Your task to perform on an android device: Add "energizer triple a" to the cart on amazon Image 0: 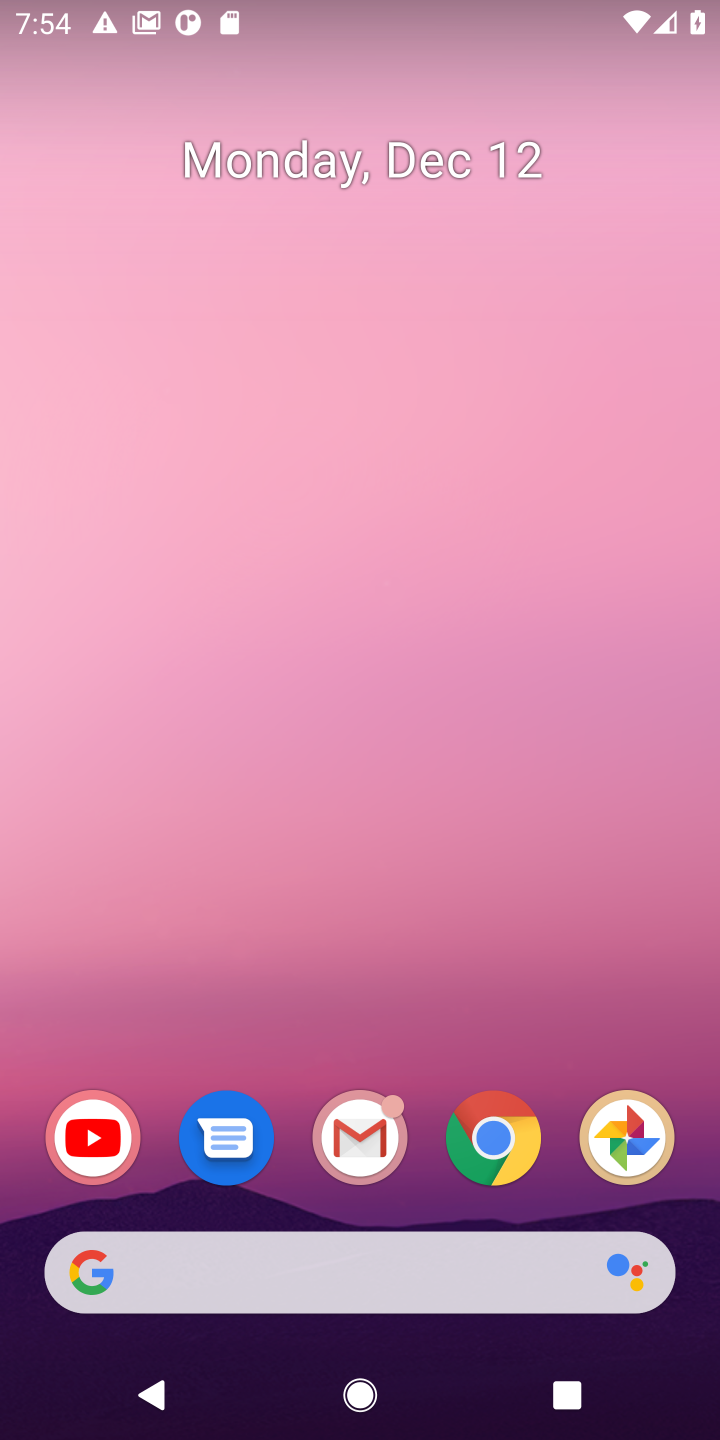
Step 0: drag from (361, 1283) to (409, 110)
Your task to perform on an android device: Add "energizer triple a" to the cart on amazon Image 1: 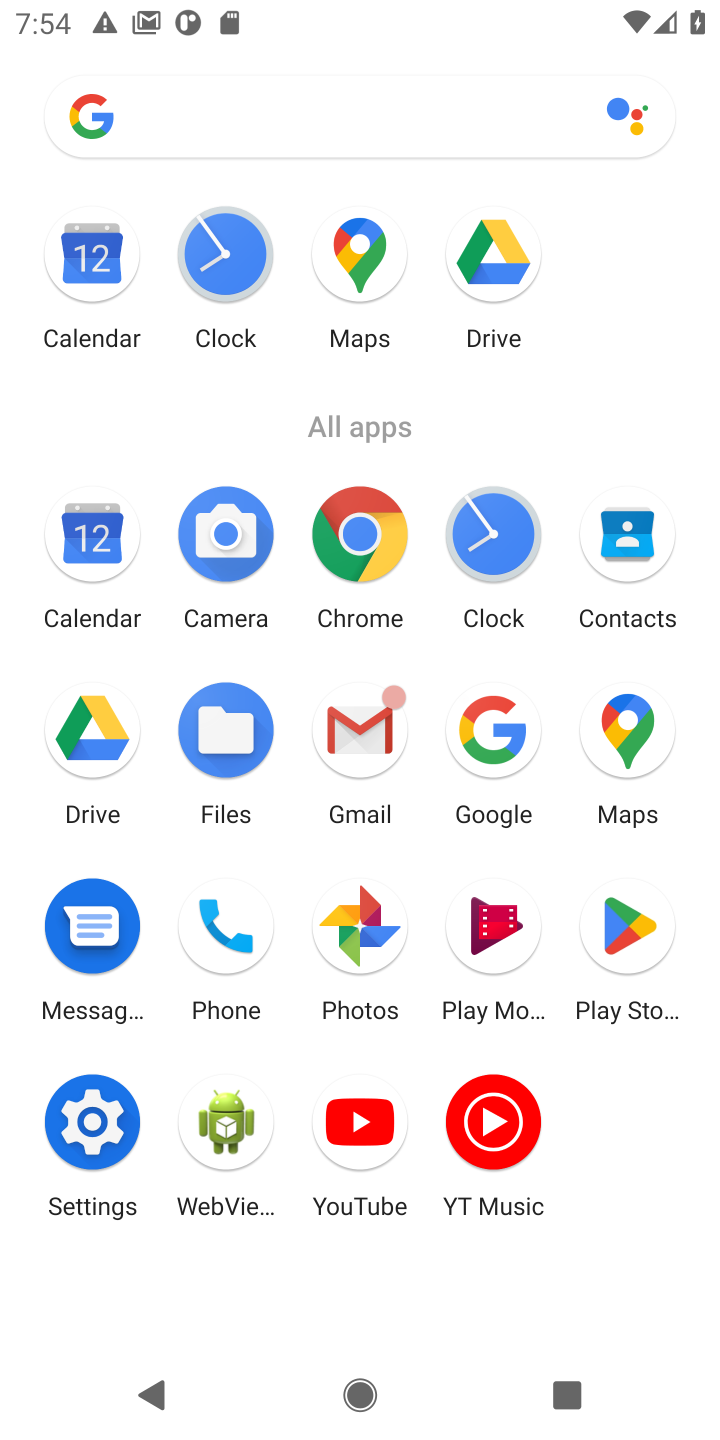
Step 1: click (470, 705)
Your task to perform on an android device: Add "energizer triple a" to the cart on amazon Image 2: 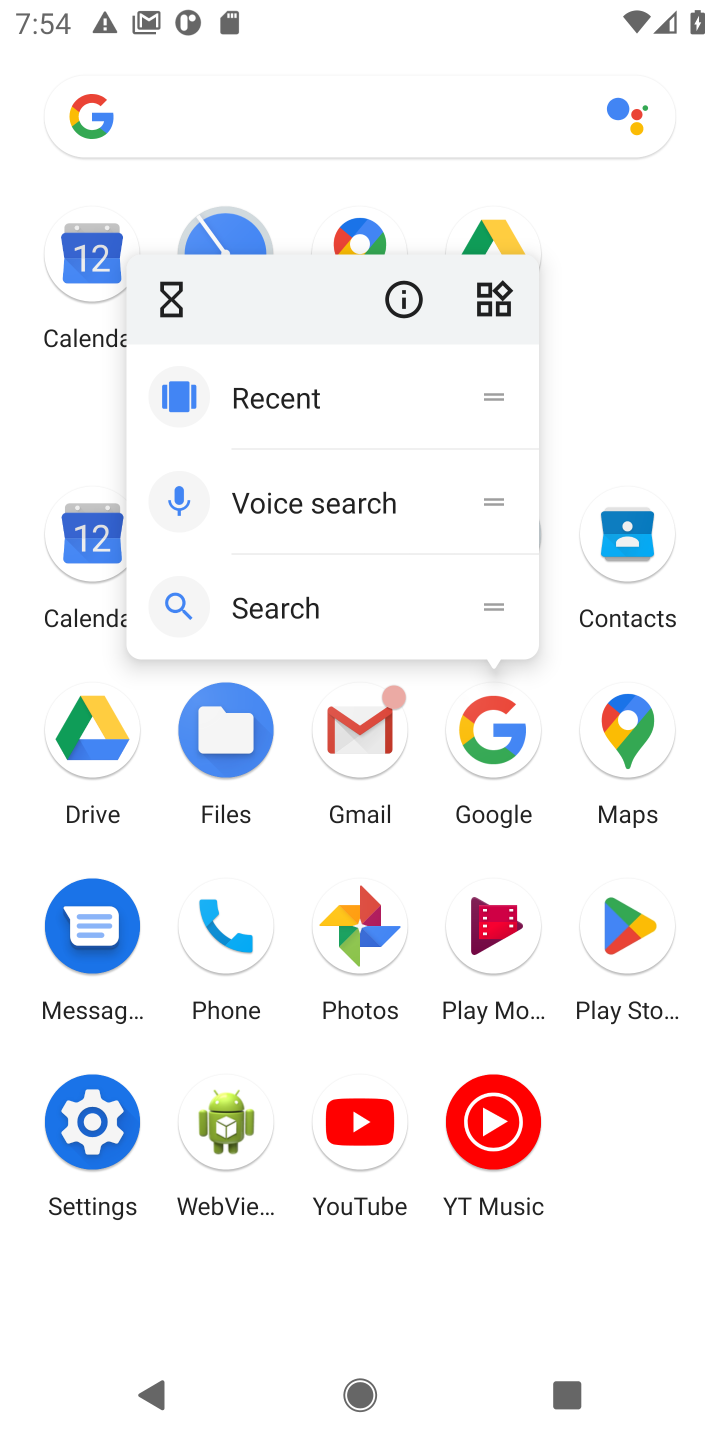
Step 2: click (488, 724)
Your task to perform on an android device: Add "energizer triple a" to the cart on amazon Image 3: 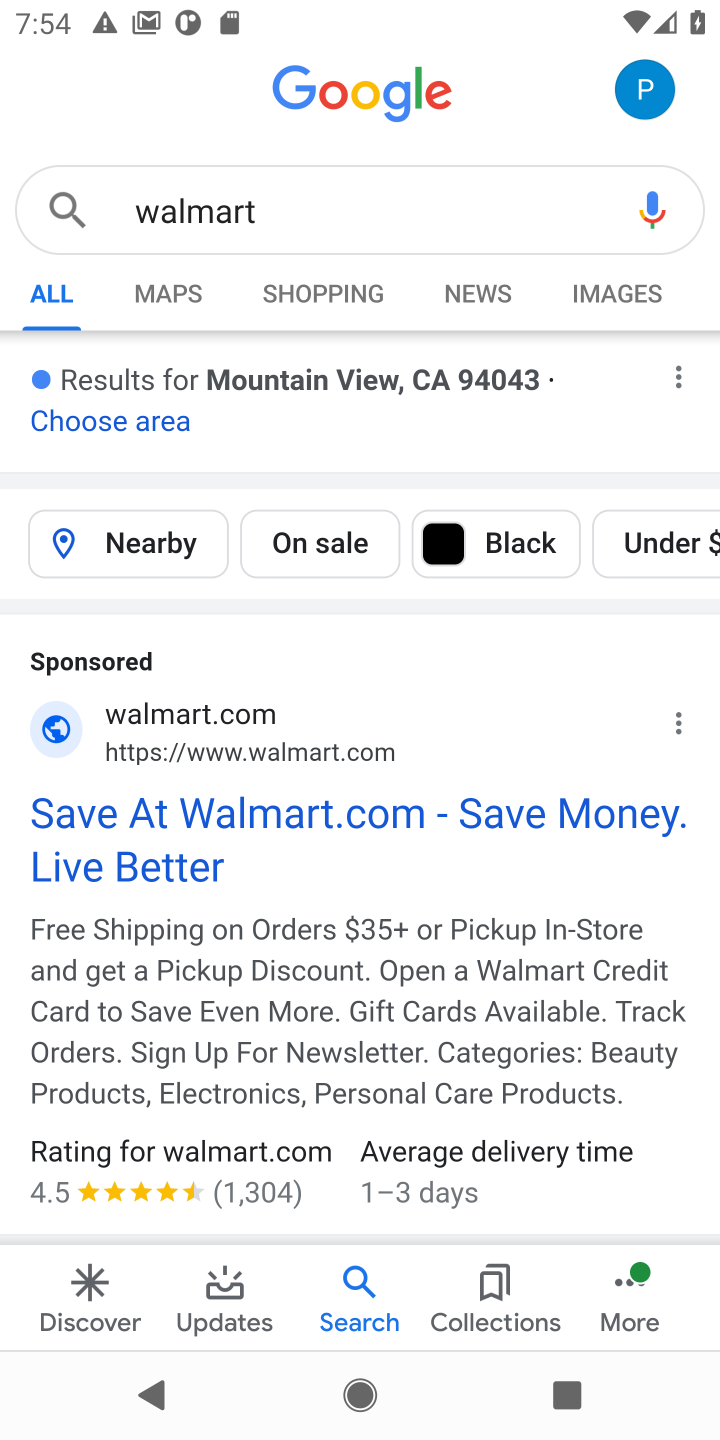
Step 3: click (221, 209)
Your task to perform on an android device: Add "energizer triple a" to the cart on amazon Image 4: 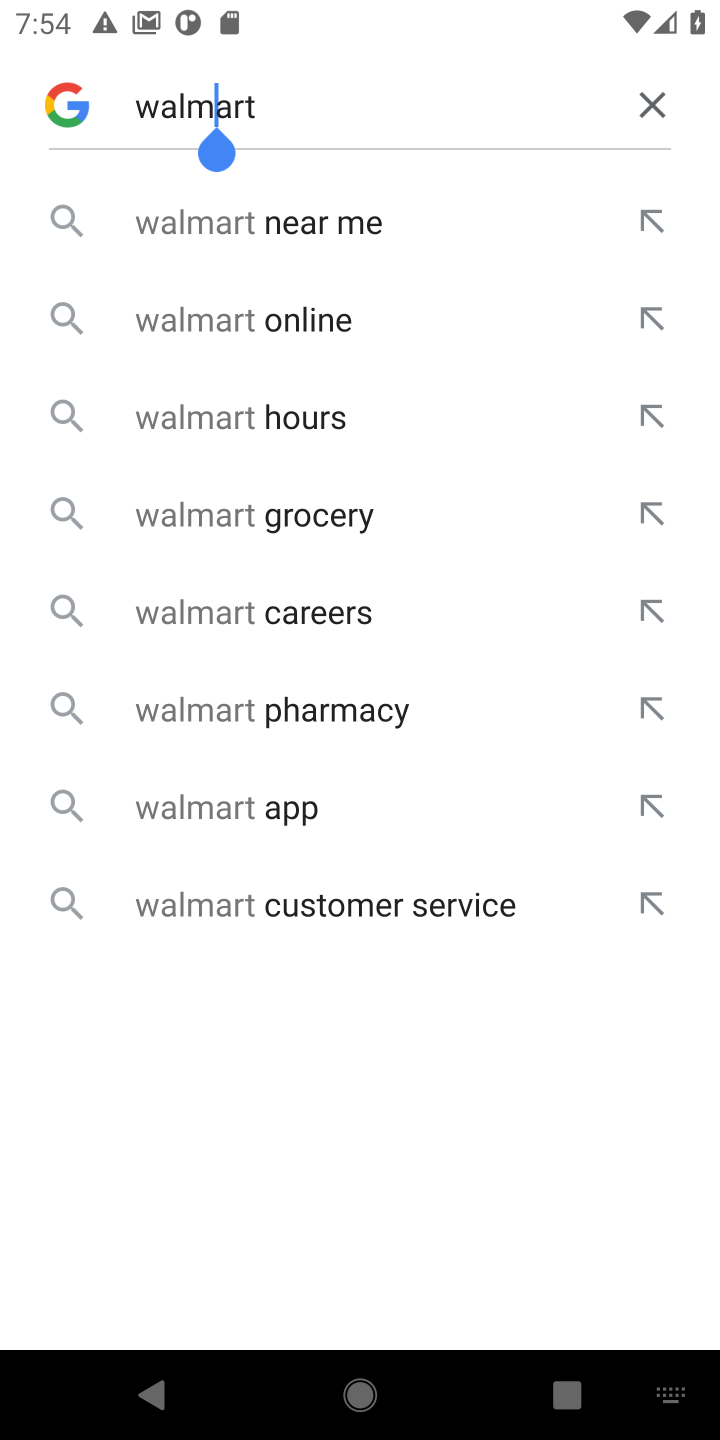
Step 4: click (642, 104)
Your task to perform on an android device: Add "energizer triple a" to the cart on amazon Image 5: 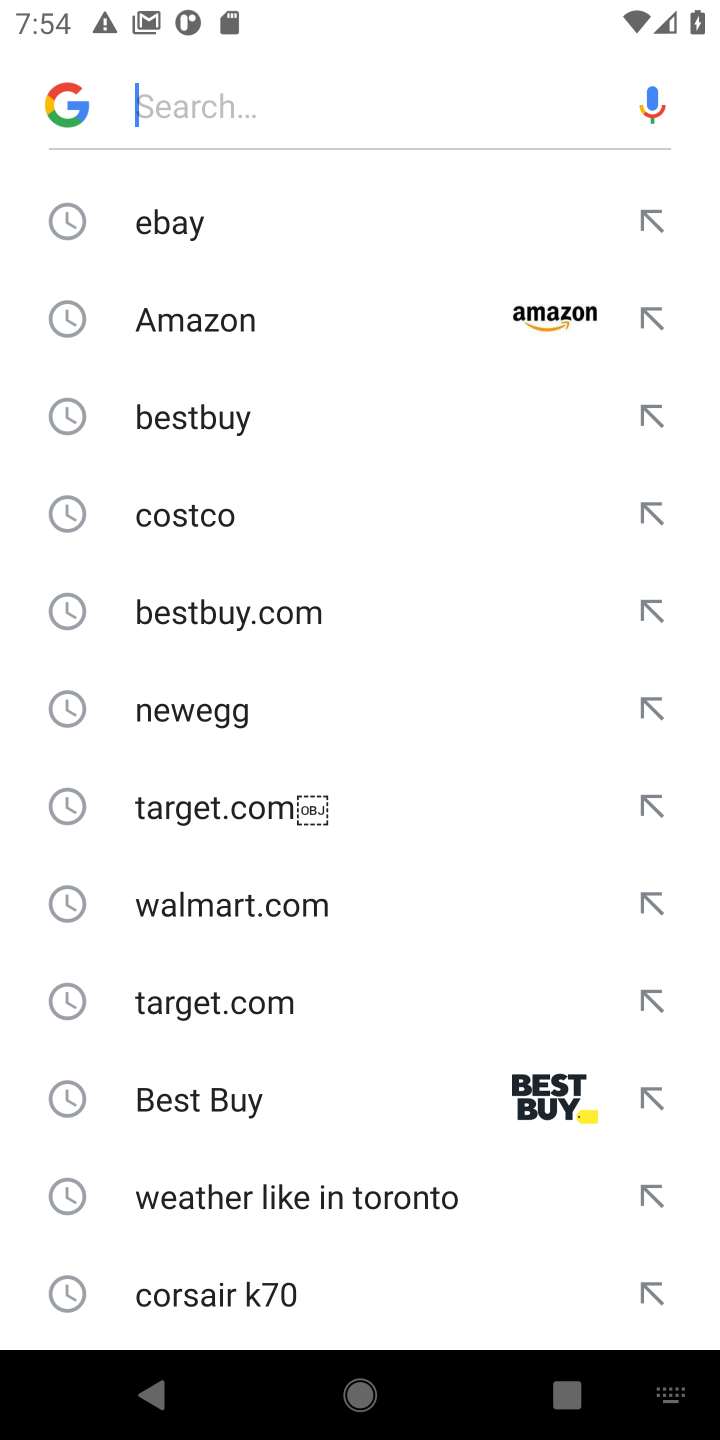
Step 5: click (552, 310)
Your task to perform on an android device: Add "energizer triple a" to the cart on amazon Image 6: 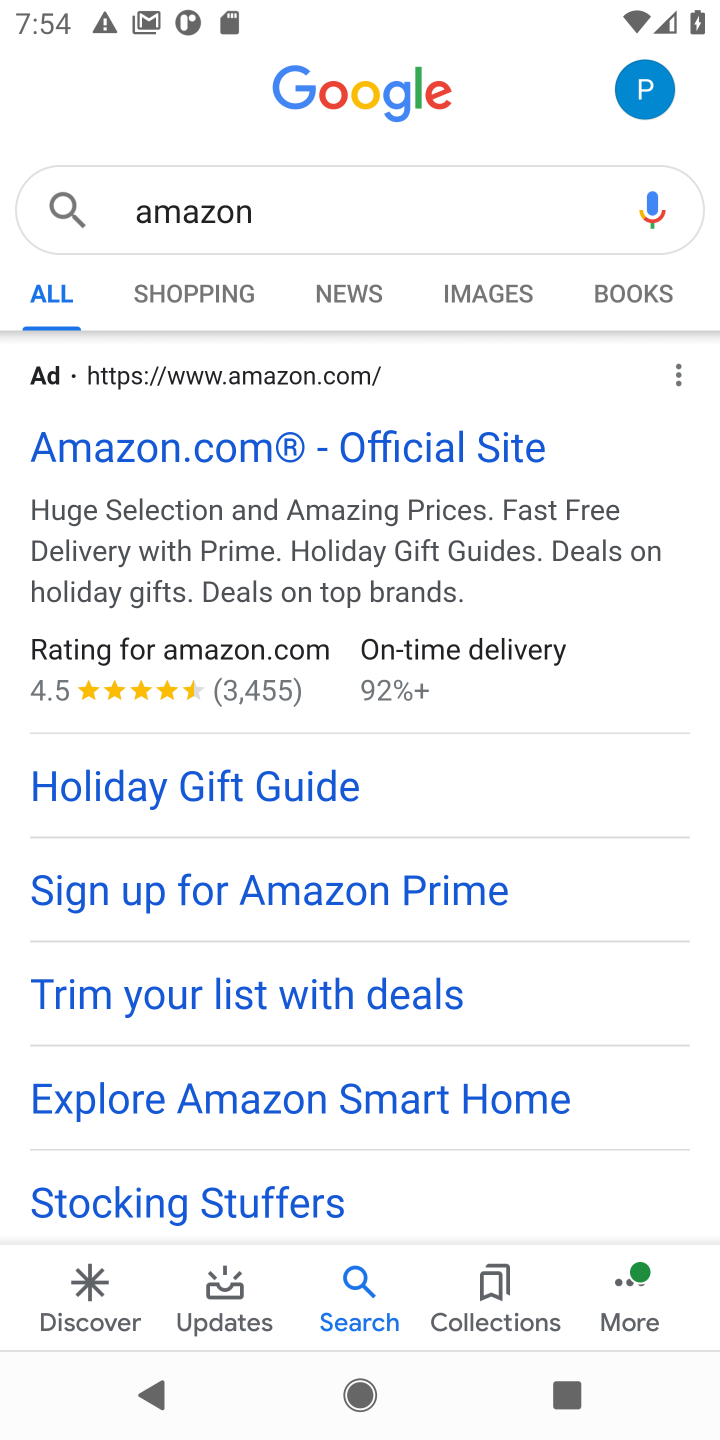
Step 6: click (139, 449)
Your task to perform on an android device: Add "energizer triple a" to the cart on amazon Image 7: 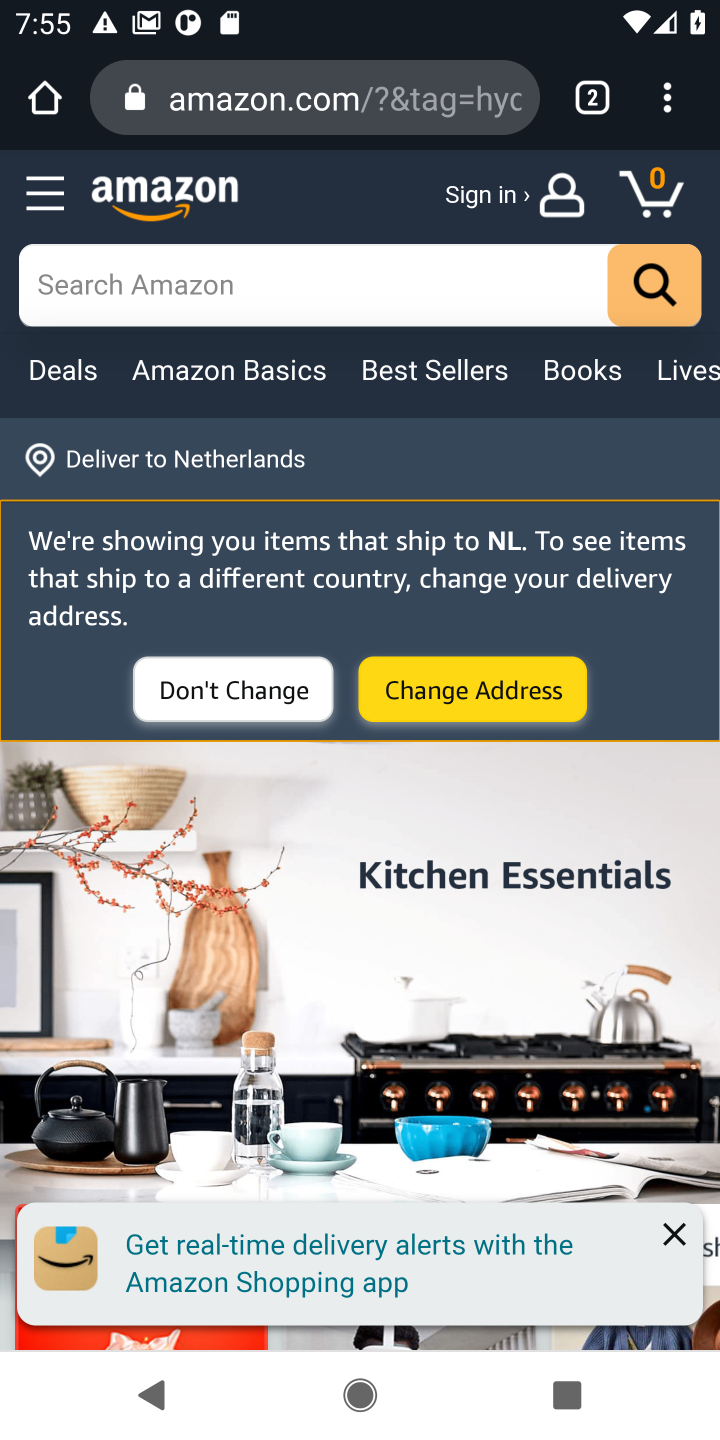
Step 7: click (121, 285)
Your task to perform on an android device: Add "energizer triple a" to the cart on amazon Image 8: 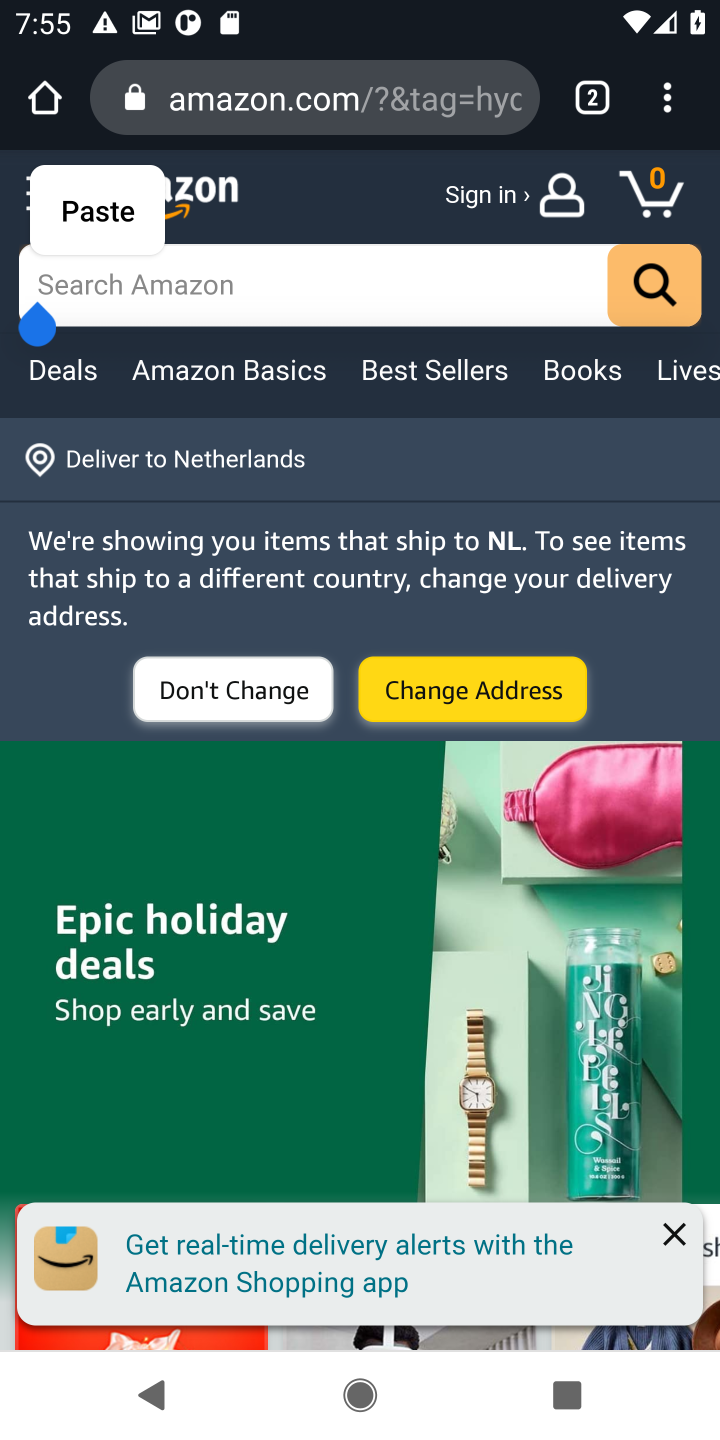
Step 8: type "energizer triple a"
Your task to perform on an android device: Add "energizer triple a" to the cart on amazon Image 9: 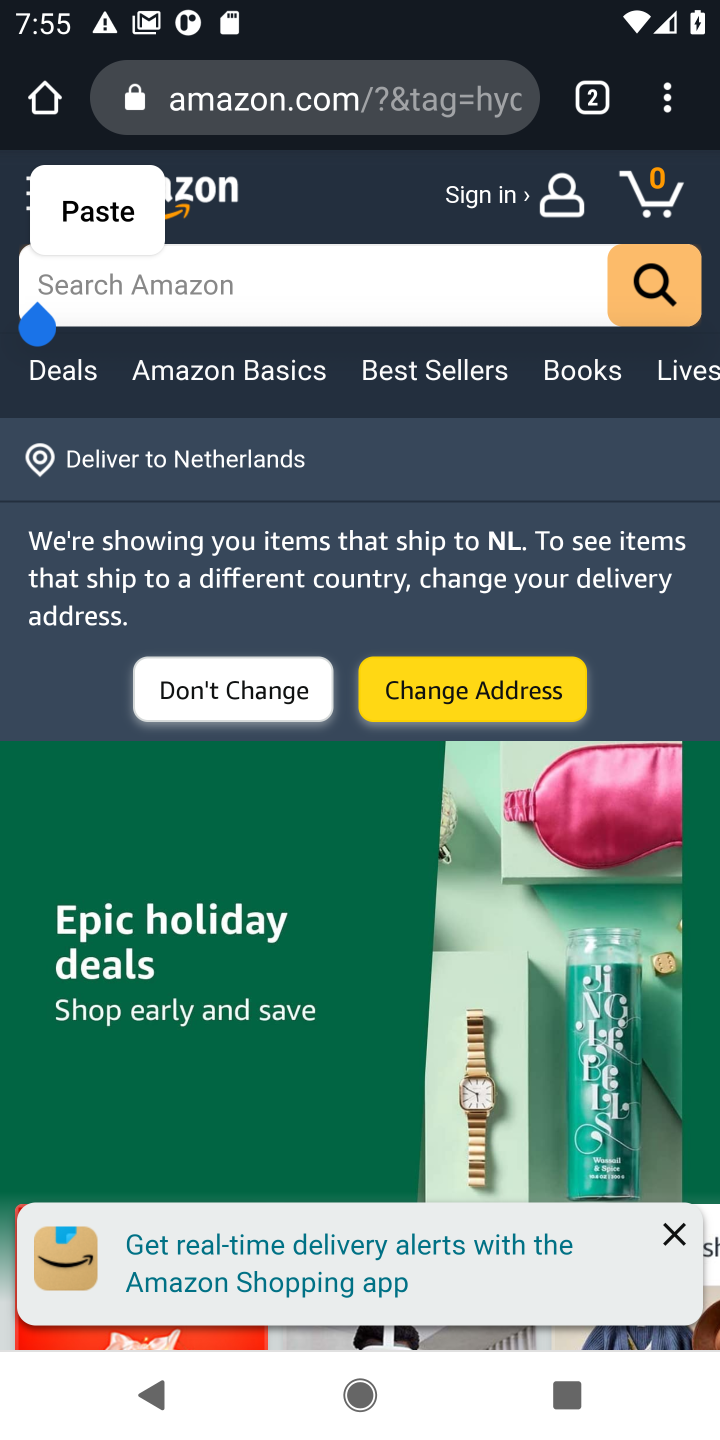
Step 9: click (647, 302)
Your task to perform on an android device: Add "energizer triple a" to the cart on amazon Image 10: 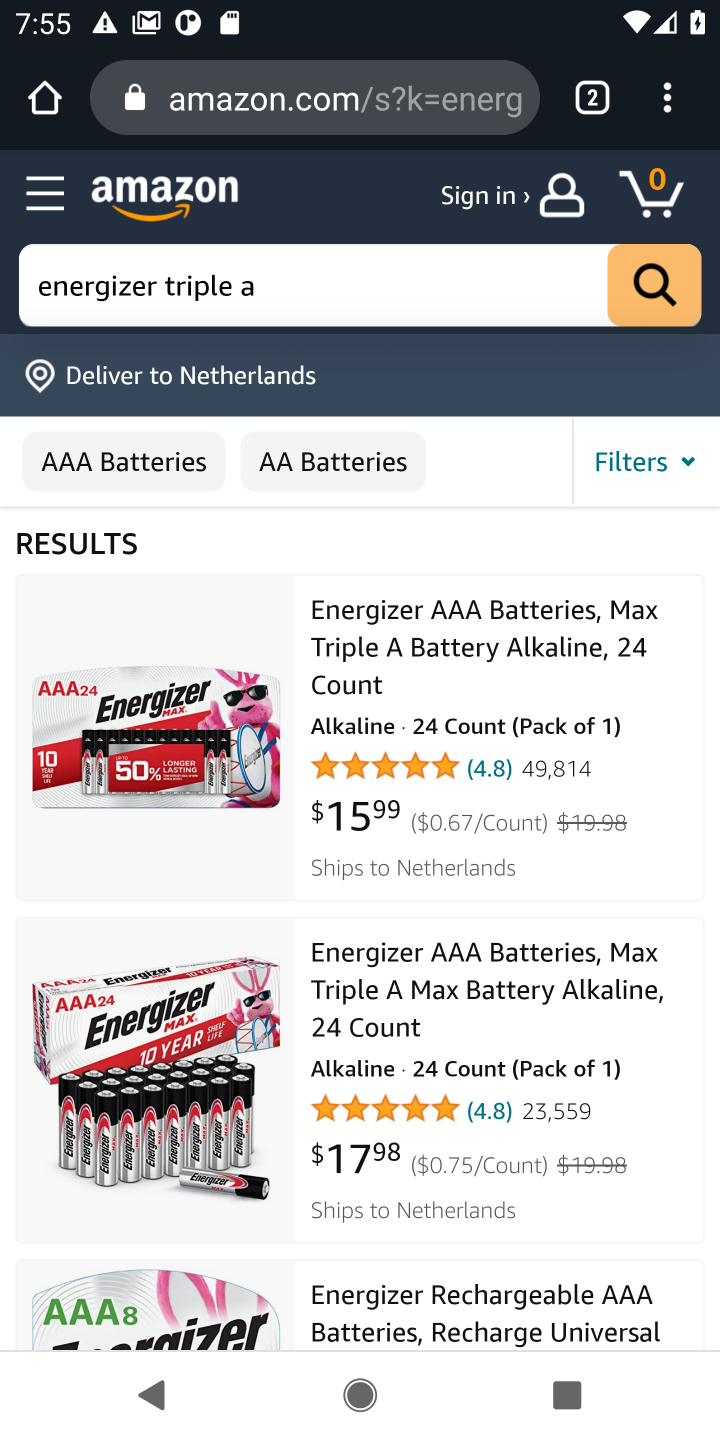
Step 10: click (347, 618)
Your task to perform on an android device: Add "energizer triple a" to the cart on amazon Image 11: 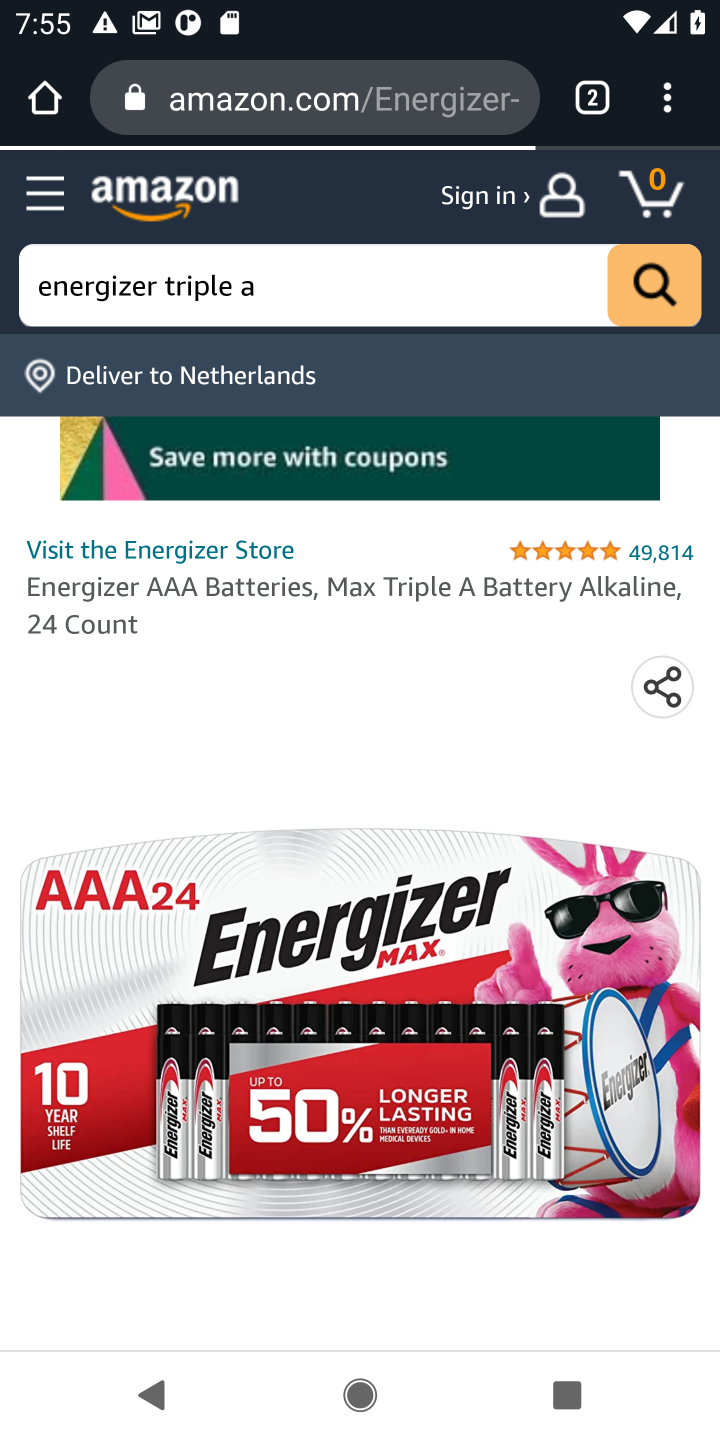
Step 11: drag from (401, 1042) to (322, 593)
Your task to perform on an android device: Add "energizer triple a" to the cart on amazon Image 12: 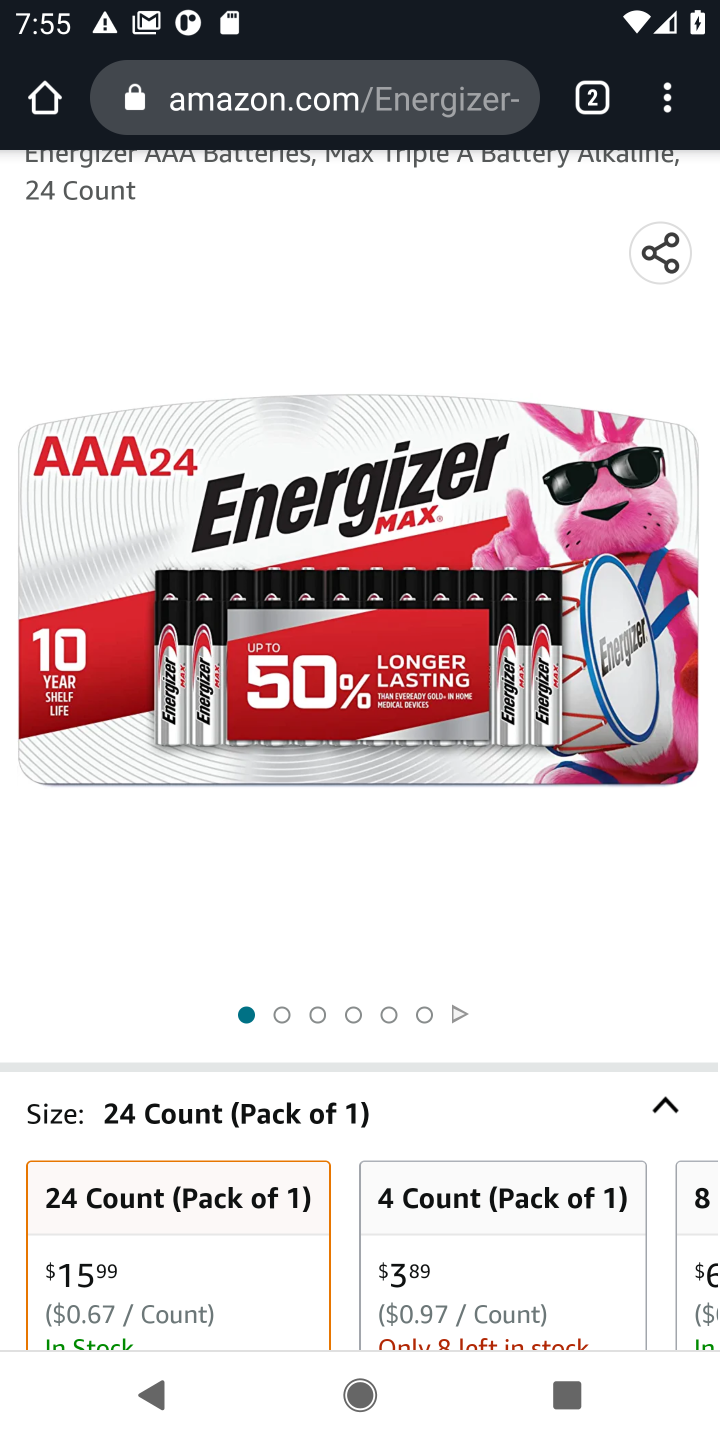
Step 12: drag from (329, 737) to (265, 301)
Your task to perform on an android device: Add "energizer triple a" to the cart on amazon Image 13: 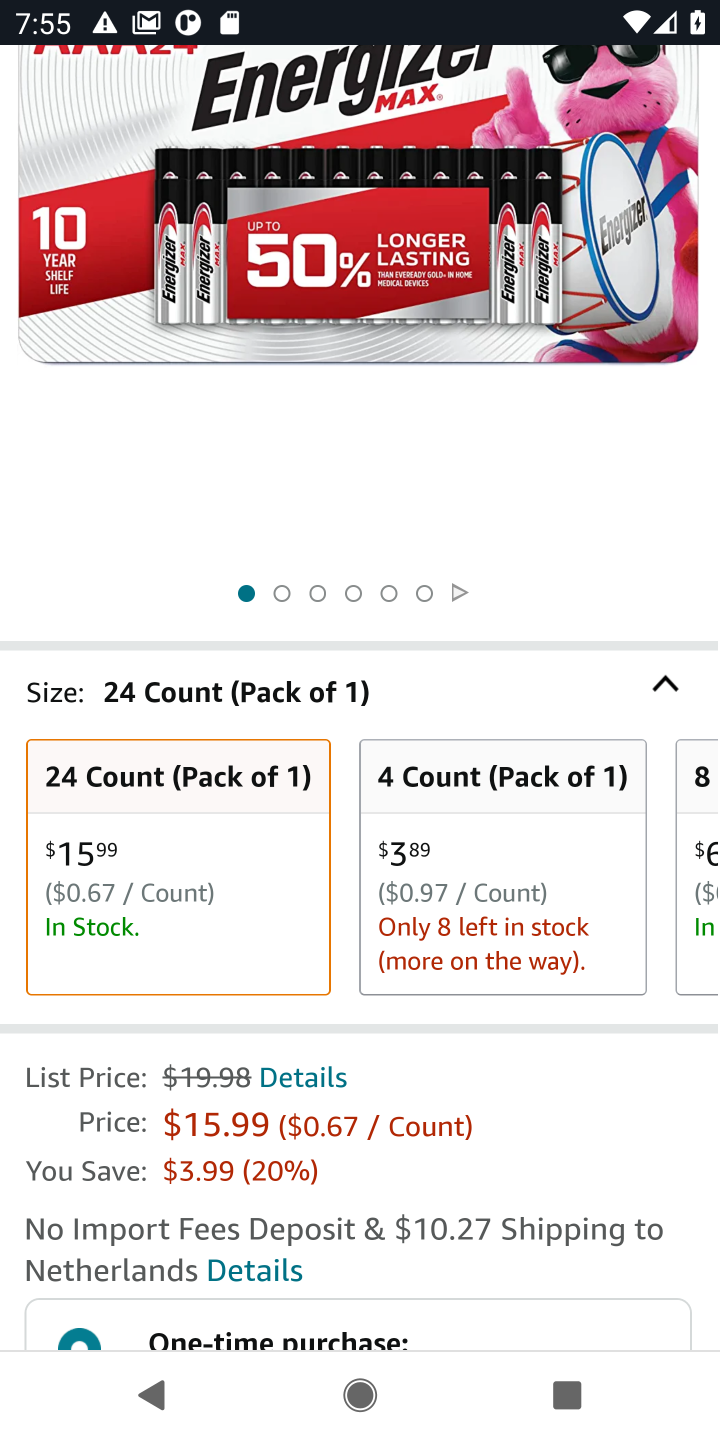
Step 13: drag from (511, 1127) to (413, 516)
Your task to perform on an android device: Add "energizer triple a" to the cart on amazon Image 14: 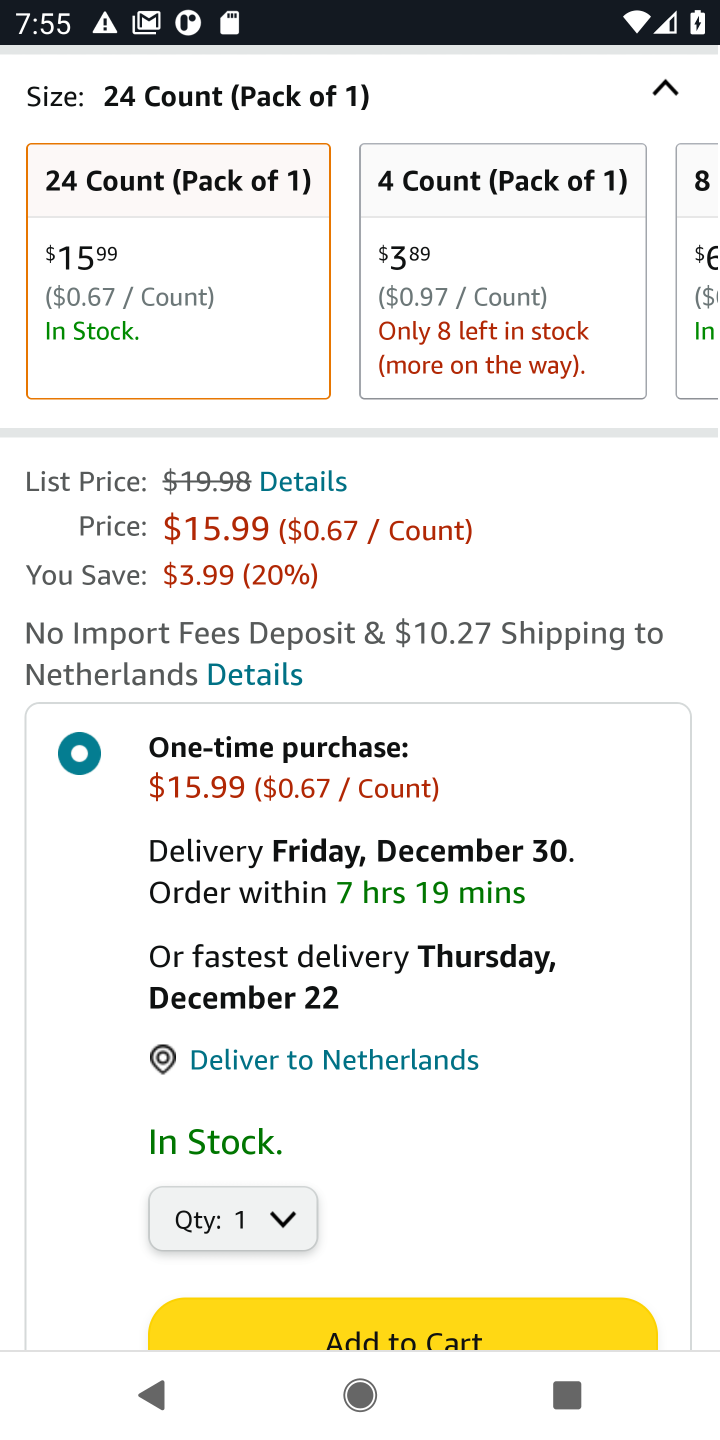
Step 14: drag from (370, 1044) to (222, 549)
Your task to perform on an android device: Add "energizer triple a" to the cart on amazon Image 15: 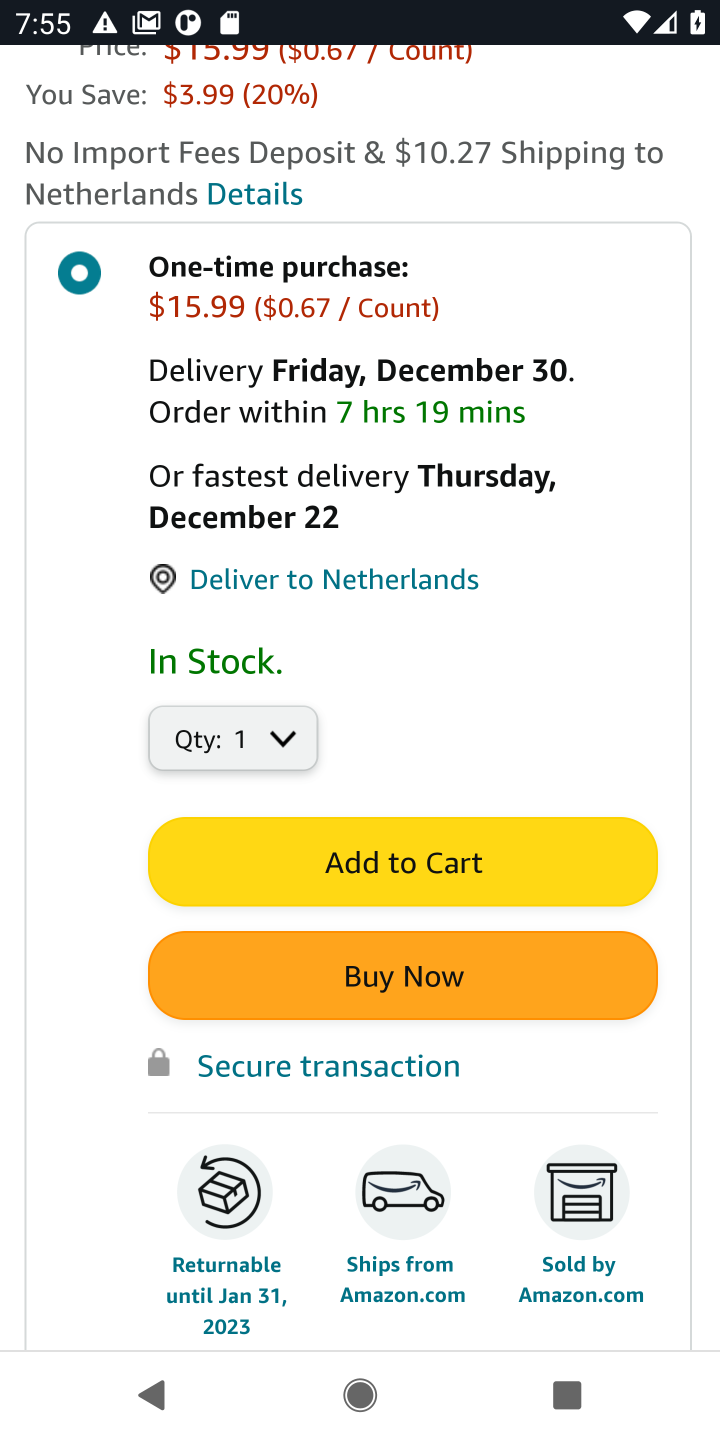
Step 15: click (361, 860)
Your task to perform on an android device: Add "energizer triple a" to the cart on amazon Image 16: 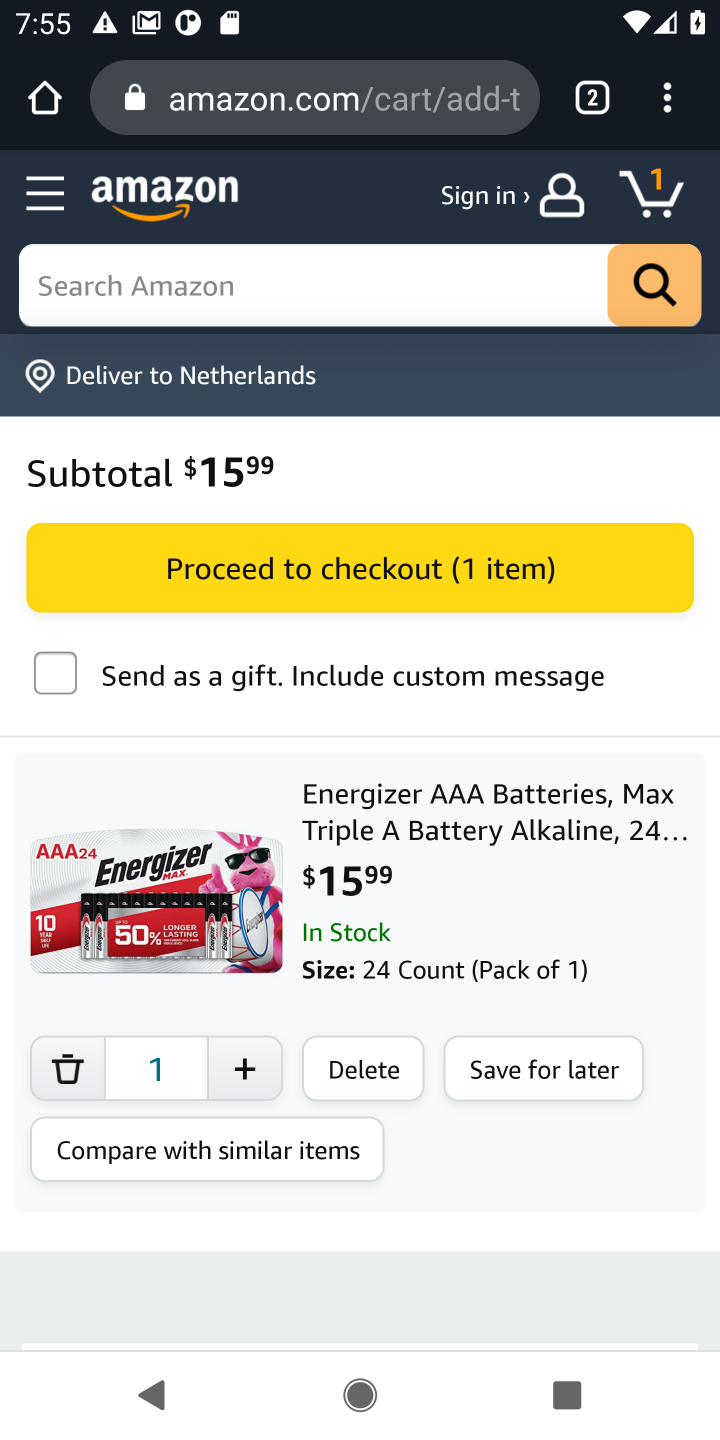
Step 16: task complete